Your task to perform on an android device: Show me popular games on the Play Store Image 0: 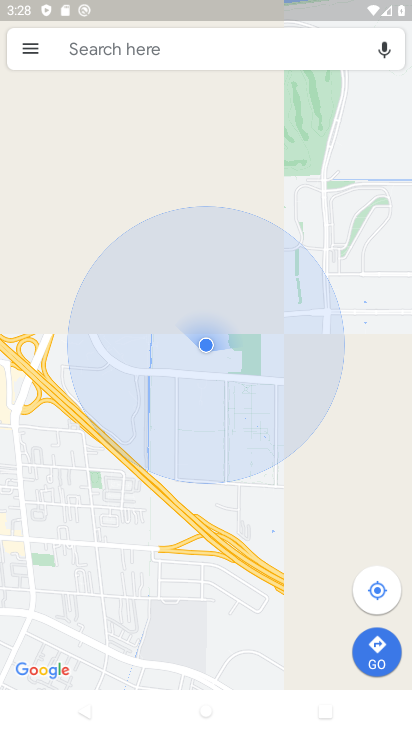
Step 0: press home button
Your task to perform on an android device: Show me popular games on the Play Store Image 1: 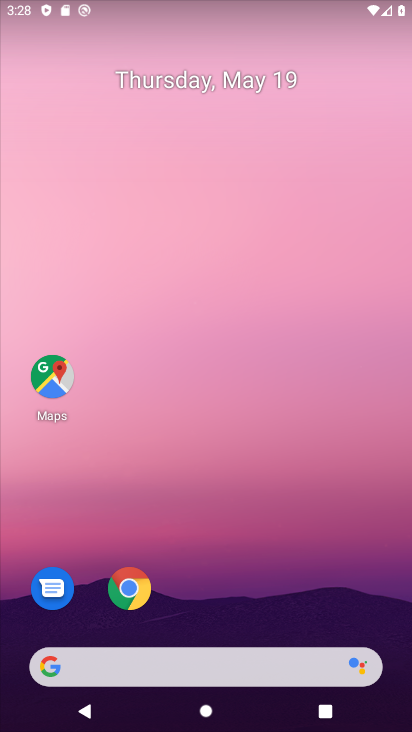
Step 1: drag from (251, 610) to (274, 168)
Your task to perform on an android device: Show me popular games on the Play Store Image 2: 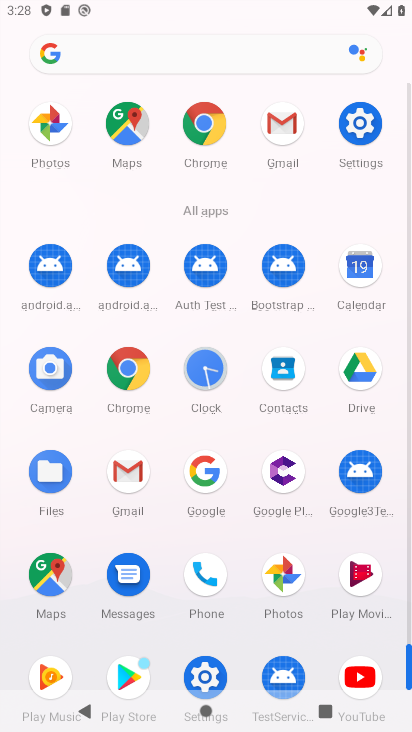
Step 2: click (133, 664)
Your task to perform on an android device: Show me popular games on the Play Store Image 3: 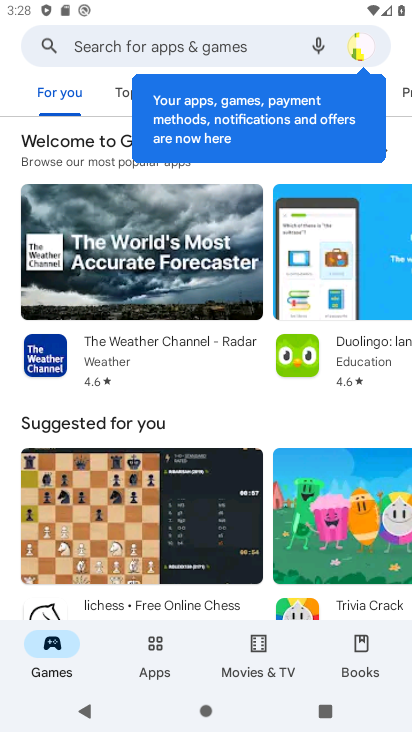
Step 3: click (116, 82)
Your task to perform on an android device: Show me popular games on the Play Store Image 4: 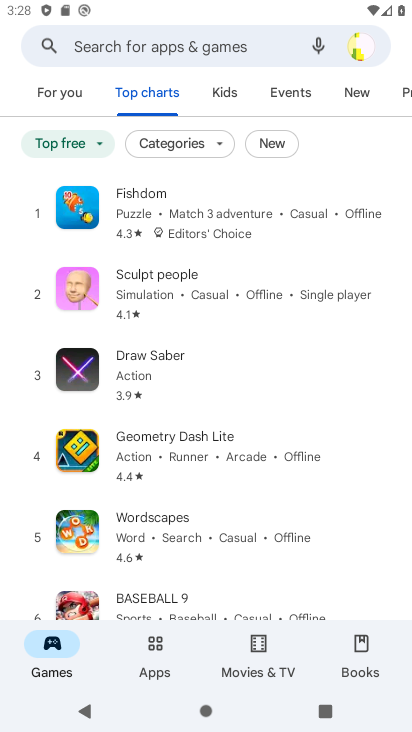
Step 4: task complete